Your task to perform on an android device: turn on notifications settings in the gmail app Image 0: 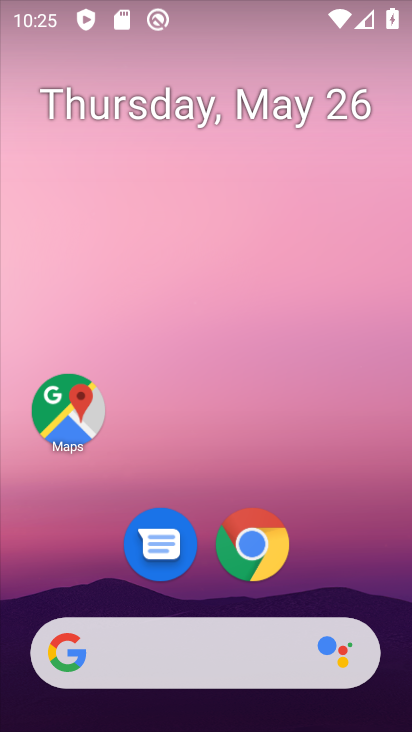
Step 0: drag from (332, 536) to (209, 26)
Your task to perform on an android device: turn on notifications settings in the gmail app Image 1: 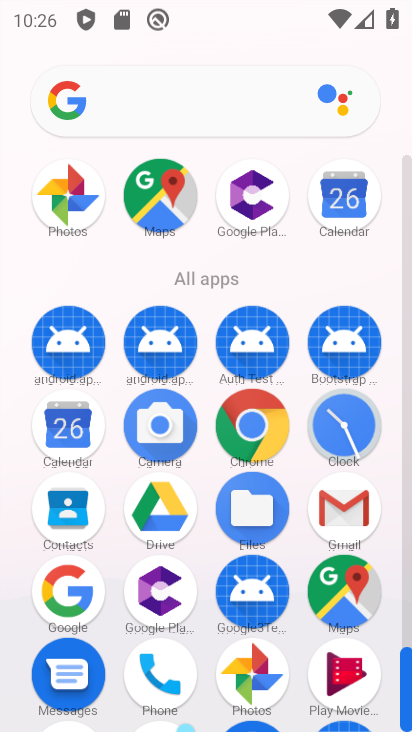
Step 1: click (346, 500)
Your task to perform on an android device: turn on notifications settings in the gmail app Image 2: 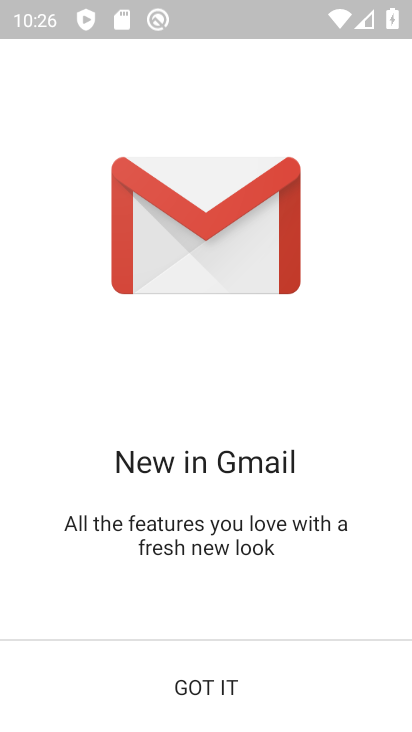
Step 2: click (222, 677)
Your task to perform on an android device: turn on notifications settings in the gmail app Image 3: 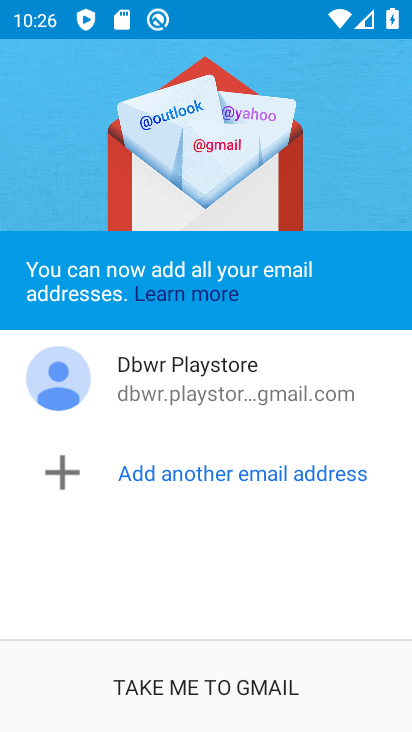
Step 3: click (221, 662)
Your task to perform on an android device: turn on notifications settings in the gmail app Image 4: 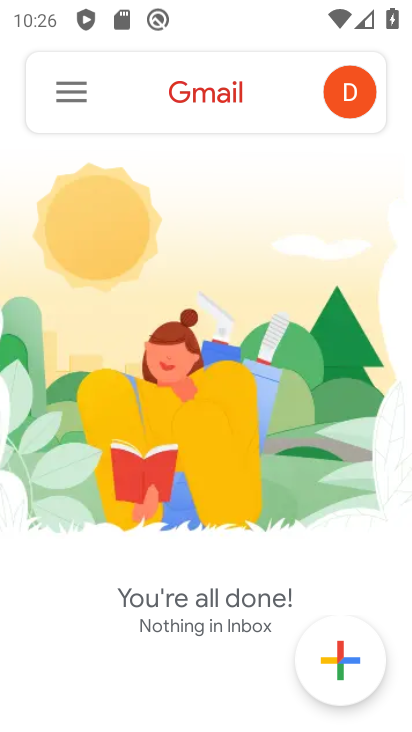
Step 4: click (61, 86)
Your task to perform on an android device: turn on notifications settings in the gmail app Image 5: 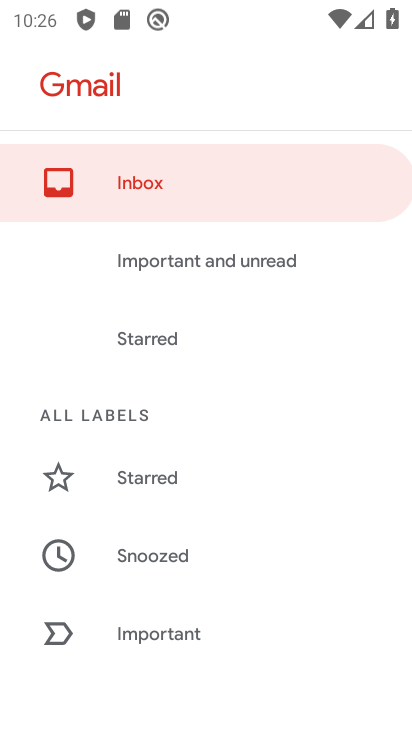
Step 5: drag from (219, 644) to (256, 220)
Your task to perform on an android device: turn on notifications settings in the gmail app Image 6: 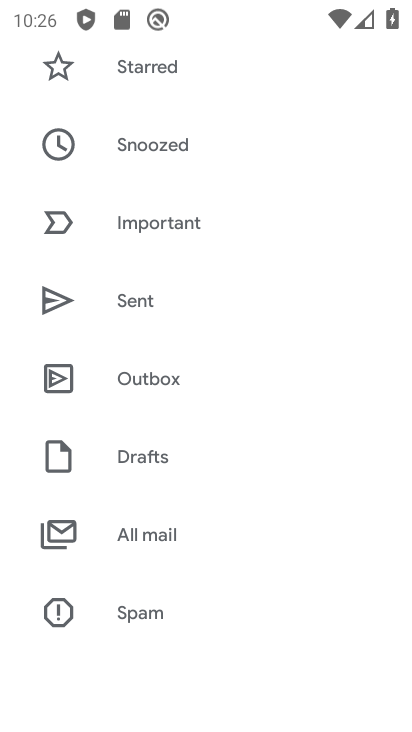
Step 6: drag from (247, 571) to (245, 163)
Your task to perform on an android device: turn on notifications settings in the gmail app Image 7: 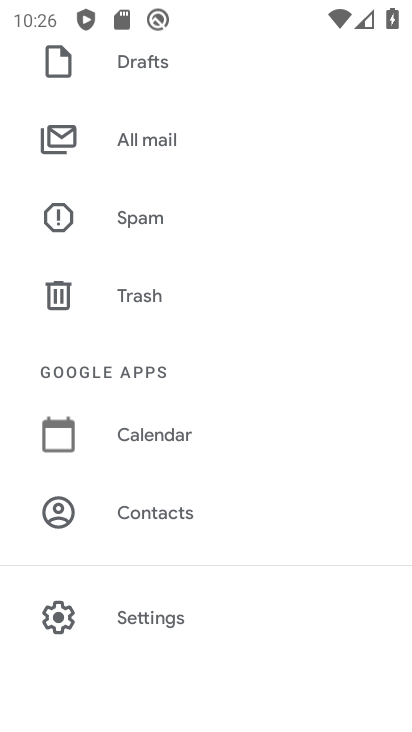
Step 7: drag from (234, 597) to (238, 151)
Your task to perform on an android device: turn on notifications settings in the gmail app Image 8: 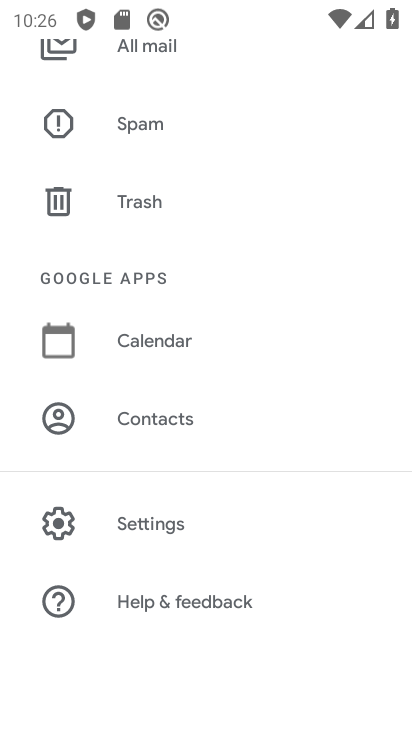
Step 8: click (184, 509)
Your task to perform on an android device: turn on notifications settings in the gmail app Image 9: 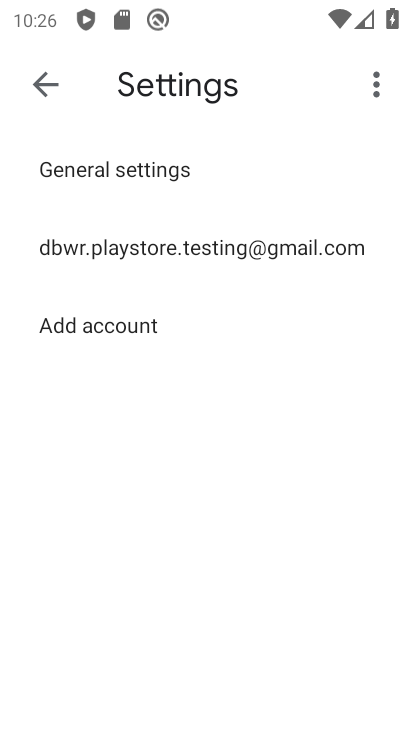
Step 9: click (184, 252)
Your task to perform on an android device: turn on notifications settings in the gmail app Image 10: 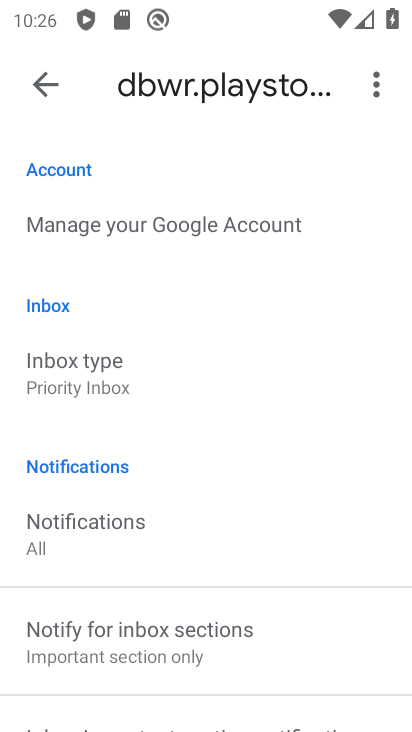
Step 10: drag from (264, 609) to (257, 193)
Your task to perform on an android device: turn on notifications settings in the gmail app Image 11: 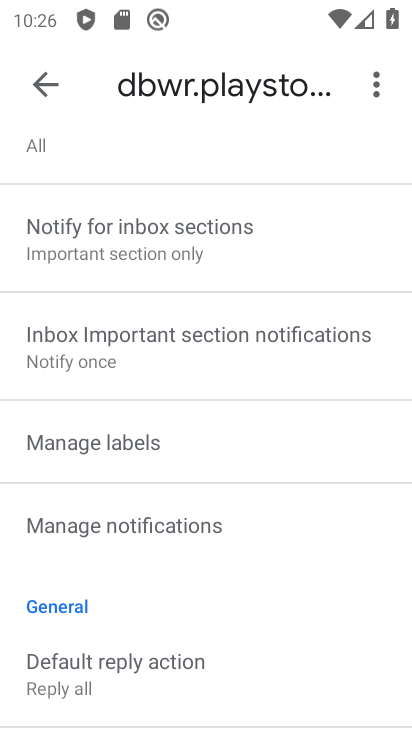
Step 11: drag from (265, 572) to (253, 205)
Your task to perform on an android device: turn on notifications settings in the gmail app Image 12: 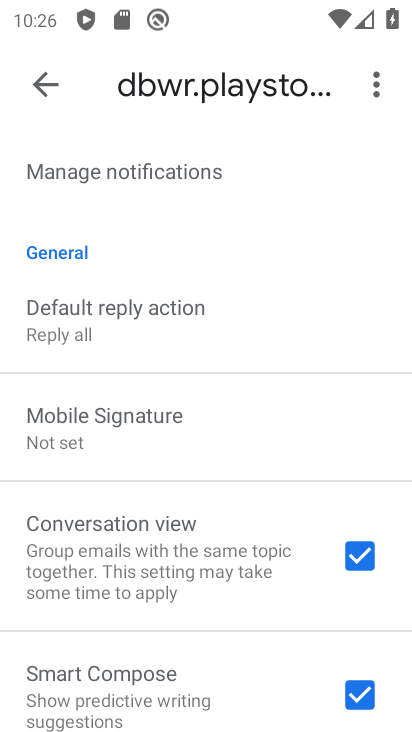
Step 12: drag from (226, 619) to (229, 225)
Your task to perform on an android device: turn on notifications settings in the gmail app Image 13: 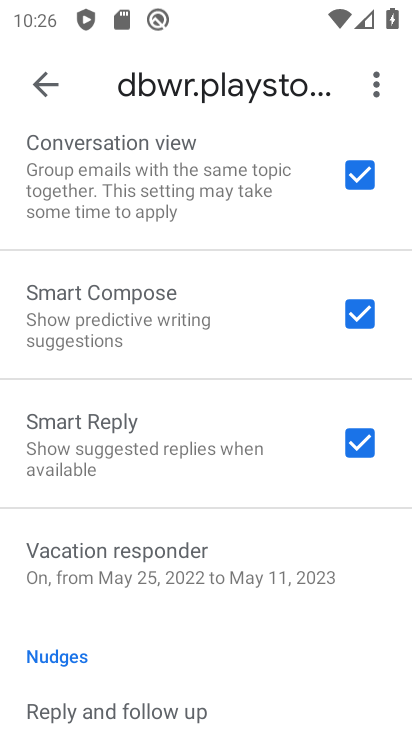
Step 13: drag from (235, 512) to (235, 139)
Your task to perform on an android device: turn on notifications settings in the gmail app Image 14: 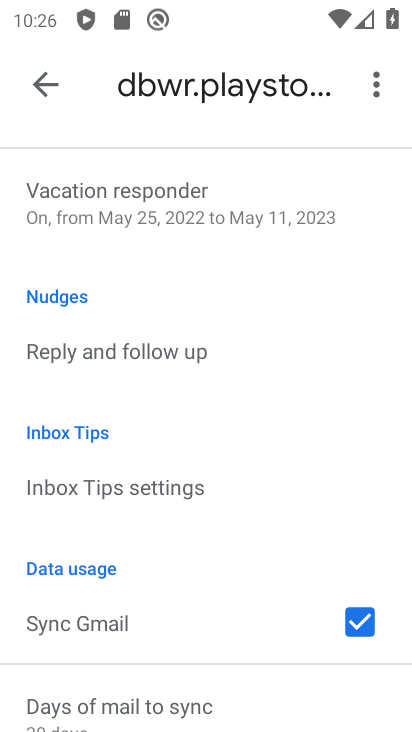
Step 14: drag from (243, 625) to (271, 261)
Your task to perform on an android device: turn on notifications settings in the gmail app Image 15: 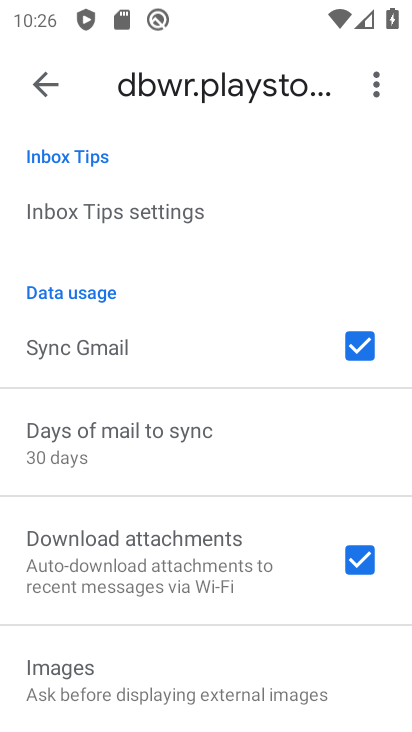
Step 15: drag from (271, 310) to (268, 618)
Your task to perform on an android device: turn on notifications settings in the gmail app Image 16: 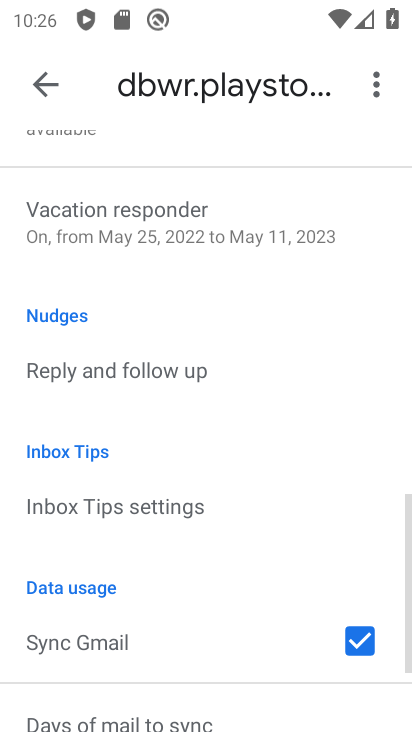
Step 16: drag from (241, 266) to (230, 621)
Your task to perform on an android device: turn on notifications settings in the gmail app Image 17: 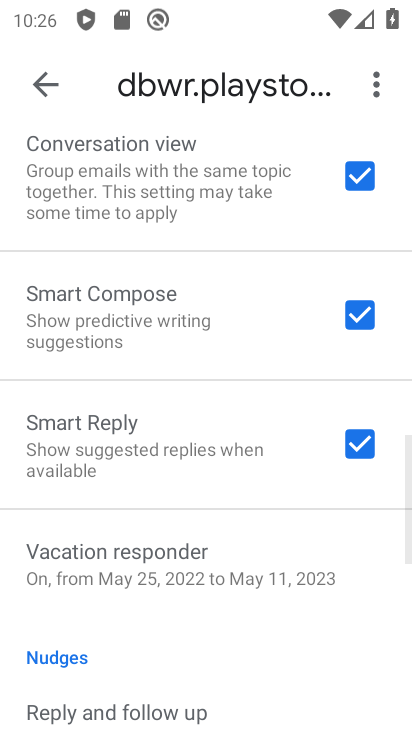
Step 17: drag from (227, 258) to (226, 630)
Your task to perform on an android device: turn on notifications settings in the gmail app Image 18: 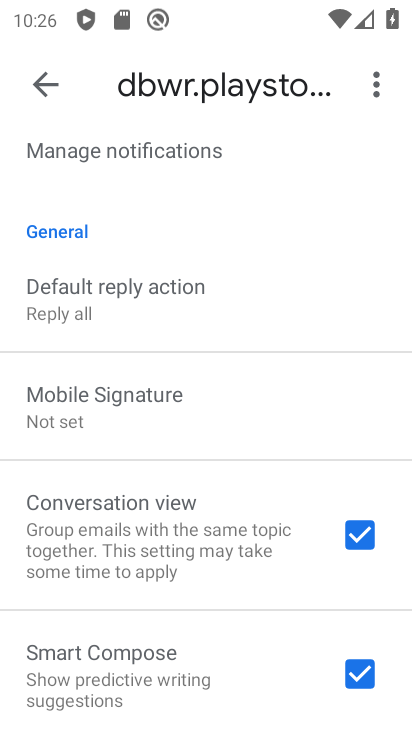
Step 18: drag from (187, 218) to (188, 471)
Your task to perform on an android device: turn on notifications settings in the gmail app Image 19: 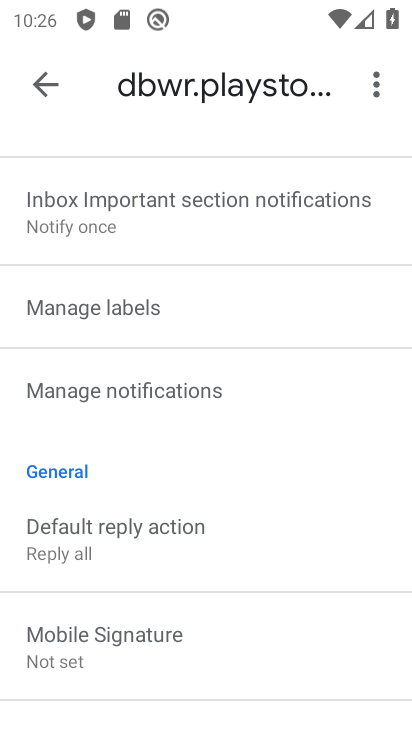
Step 19: click (175, 400)
Your task to perform on an android device: turn on notifications settings in the gmail app Image 20: 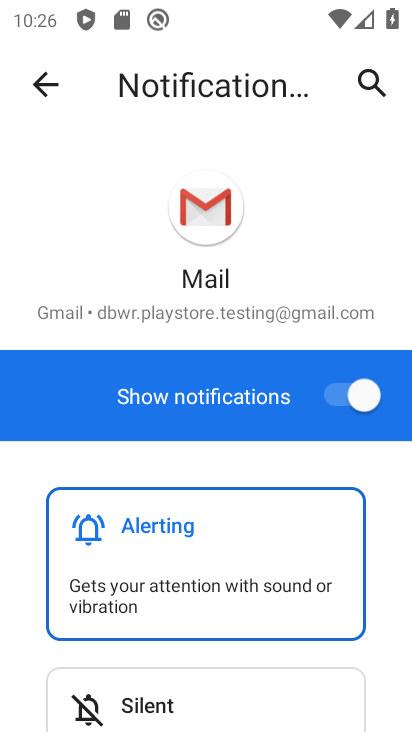
Step 20: task complete